Your task to perform on an android device: Turn on the flashlight Image 0: 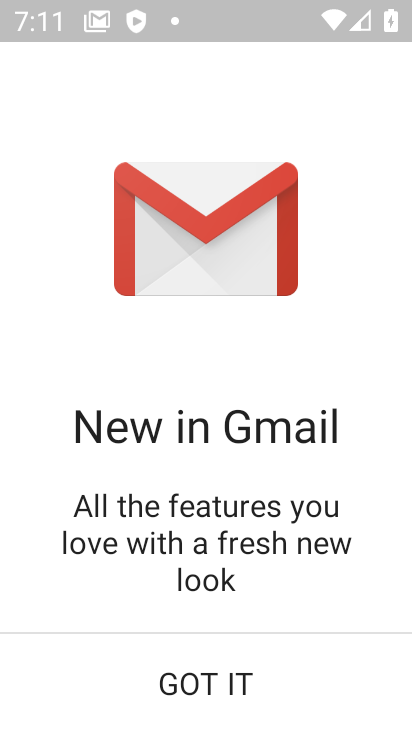
Step 0: click (260, 687)
Your task to perform on an android device: Turn on the flashlight Image 1: 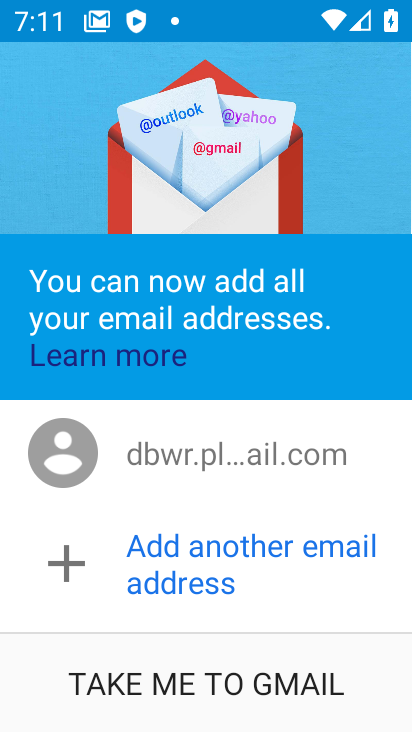
Step 1: click (215, 677)
Your task to perform on an android device: Turn on the flashlight Image 2: 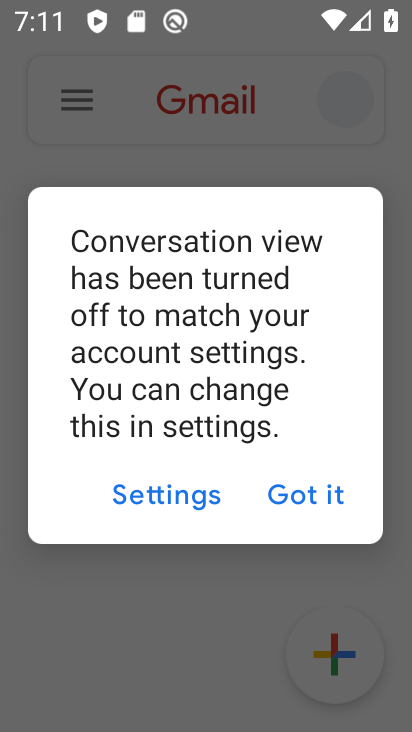
Step 2: click (323, 501)
Your task to perform on an android device: Turn on the flashlight Image 3: 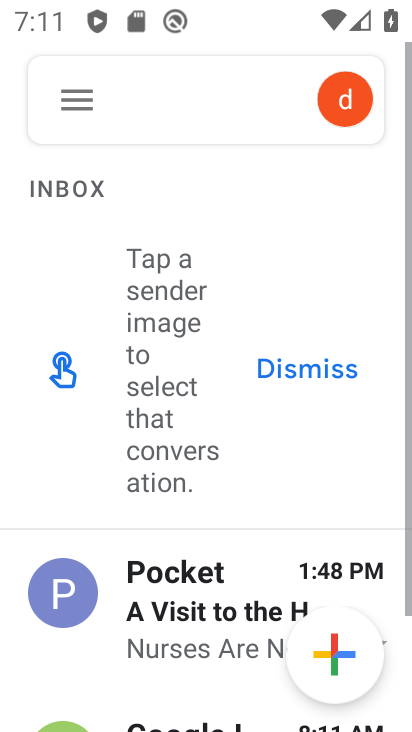
Step 3: click (316, 369)
Your task to perform on an android device: Turn on the flashlight Image 4: 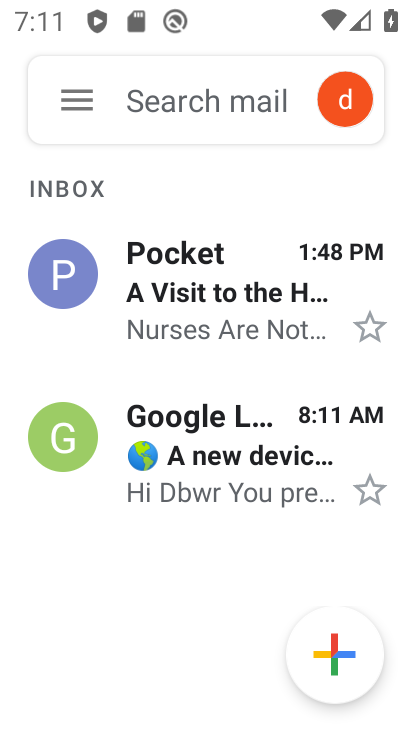
Step 4: press home button
Your task to perform on an android device: Turn on the flashlight Image 5: 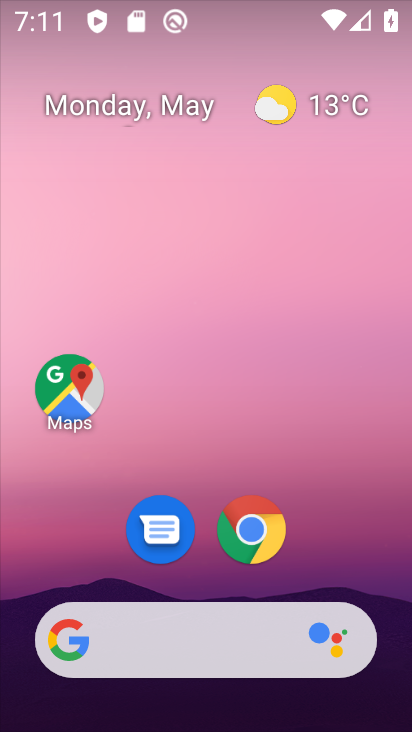
Step 5: drag from (285, 674) to (305, 122)
Your task to perform on an android device: Turn on the flashlight Image 6: 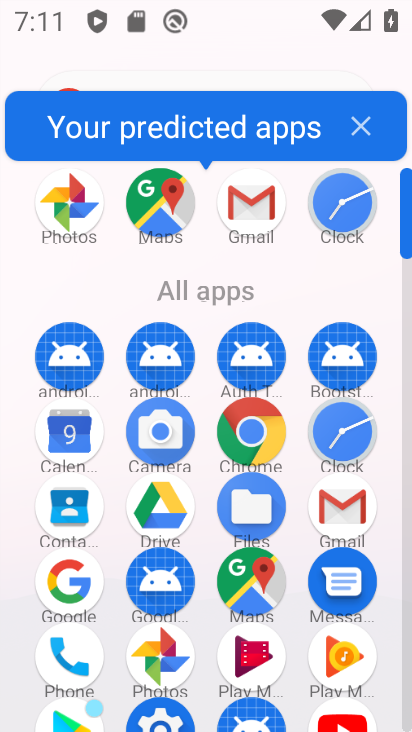
Step 6: click (161, 708)
Your task to perform on an android device: Turn on the flashlight Image 7: 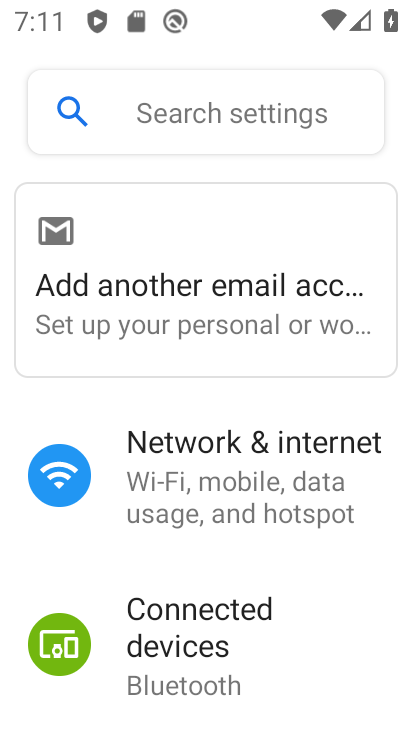
Step 7: click (169, 110)
Your task to perform on an android device: Turn on the flashlight Image 8: 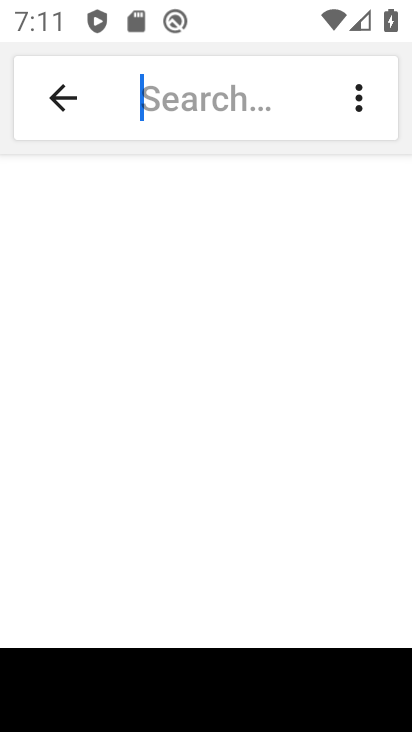
Step 8: drag from (395, 689) to (410, 619)
Your task to perform on an android device: Turn on the flashlight Image 9: 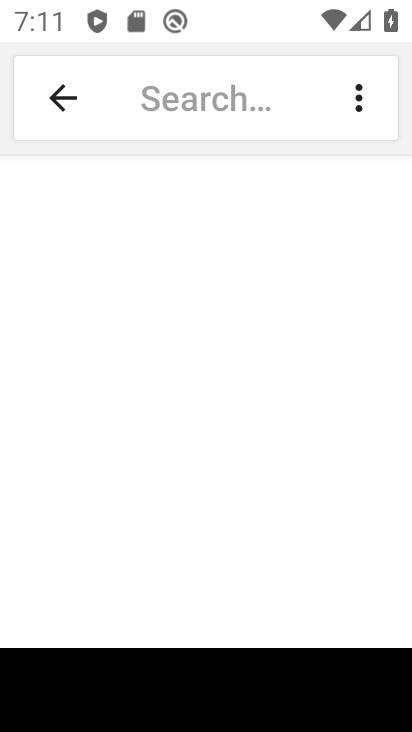
Step 9: drag from (381, 699) to (407, 574)
Your task to perform on an android device: Turn on the flashlight Image 10: 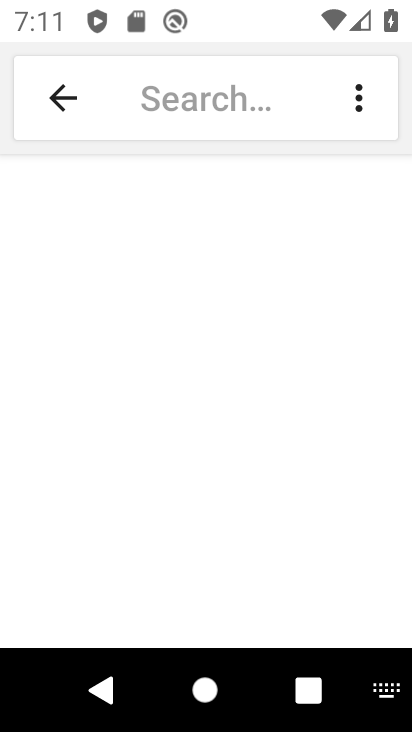
Step 10: click (370, 683)
Your task to perform on an android device: Turn on the flashlight Image 11: 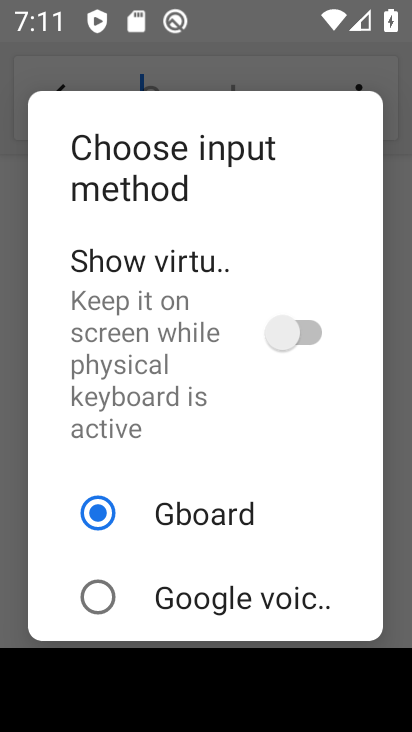
Step 11: drag from (368, 705) to (303, 304)
Your task to perform on an android device: Turn on the flashlight Image 12: 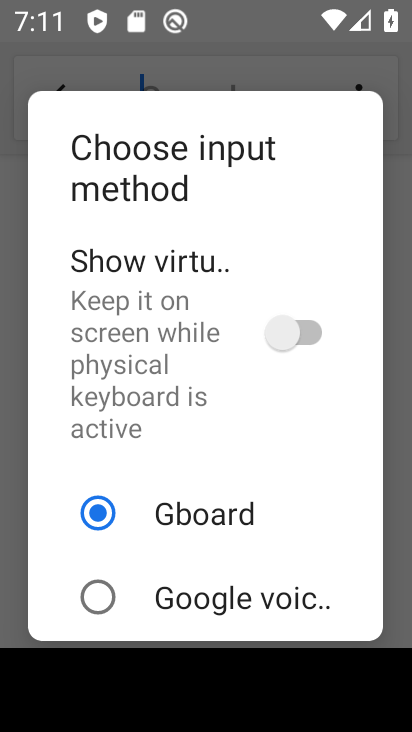
Step 12: click (311, 324)
Your task to perform on an android device: Turn on the flashlight Image 13: 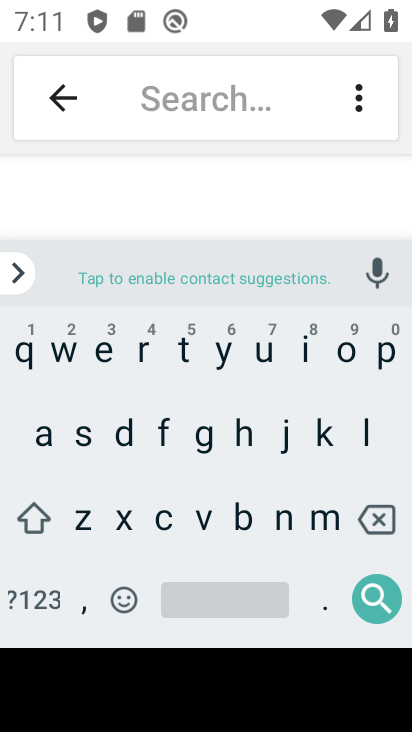
Step 13: click (161, 429)
Your task to perform on an android device: Turn on the flashlight Image 14: 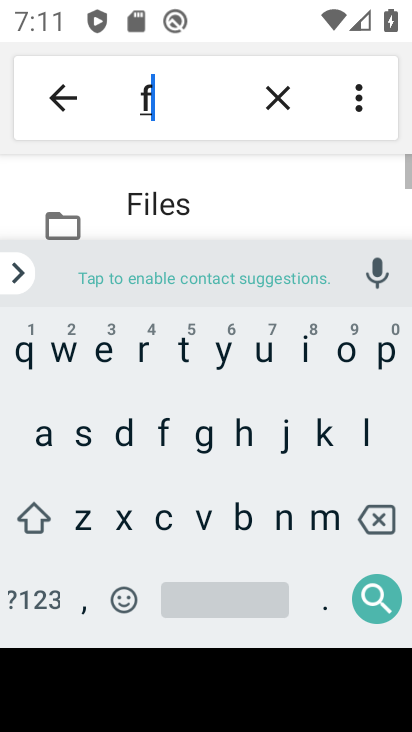
Step 14: click (365, 431)
Your task to perform on an android device: Turn on the flashlight Image 15: 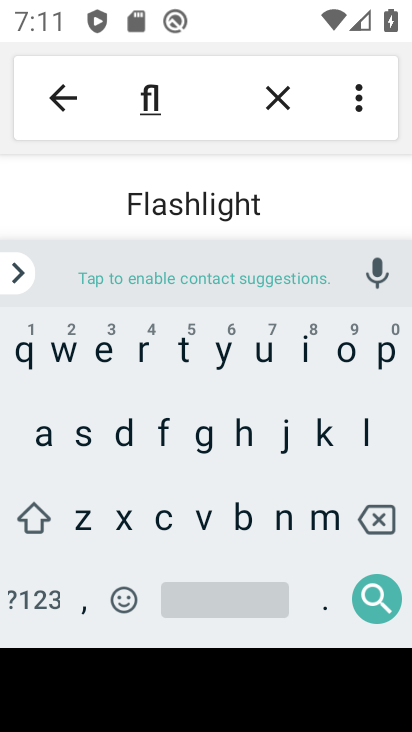
Step 15: click (236, 213)
Your task to perform on an android device: Turn on the flashlight Image 16: 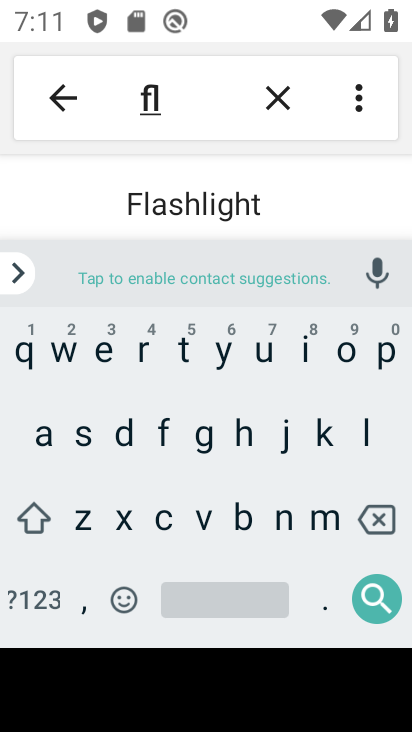
Step 16: task complete